Your task to perform on an android device: turn on the 24-hour format for clock Image 0: 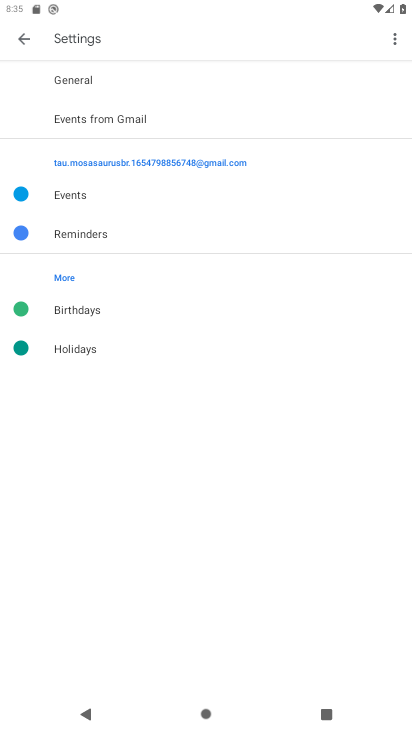
Step 0: press home button
Your task to perform on an android device: turn on the 24-hour format for clock Image 1: 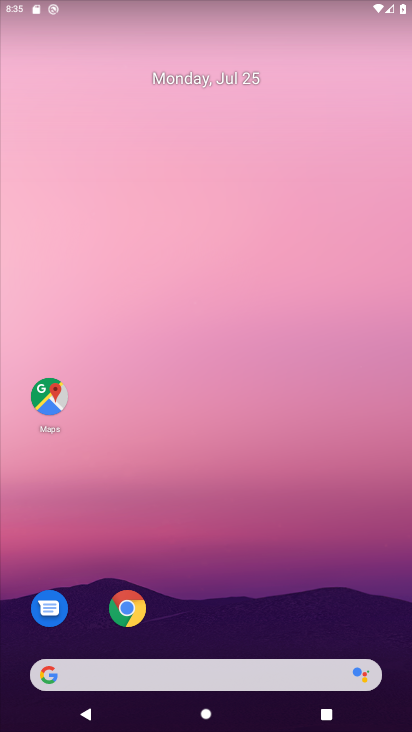
Step 1: drag from (220, 622) to (341, 5)
Your task to perform on an android device: turn on the 24-hour format for clock Image 2: 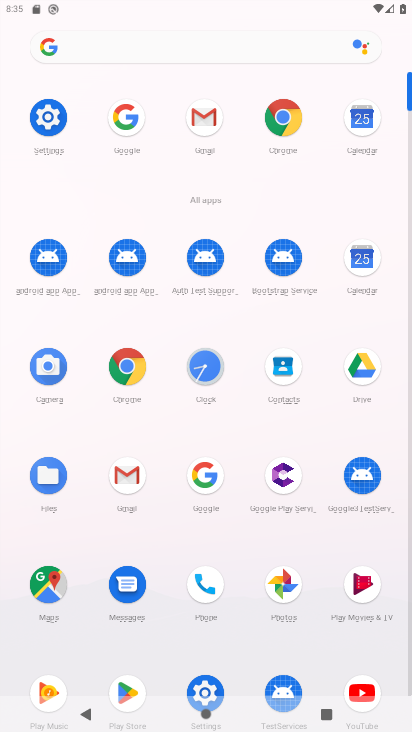
Step 2: click (200, 351)
Your task to perform on an android device: turn on the 24-hour format for clock Image 3: 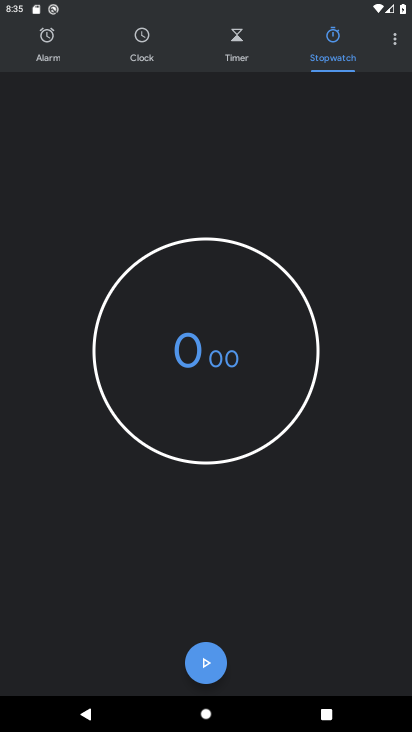
Step 3: click (394, 32)
Your task to perform on an android device: turn on the 24-hour format for clock Image 4: 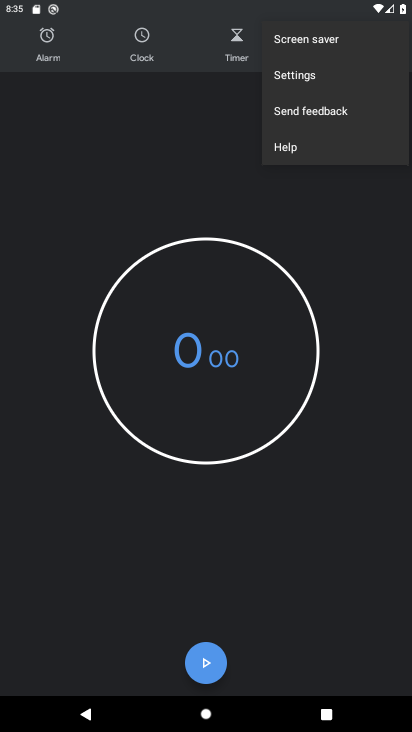
Step 4: click (295, 71)
Your task to perform on an android device: turn on the 24-hour format for clock Image 5: 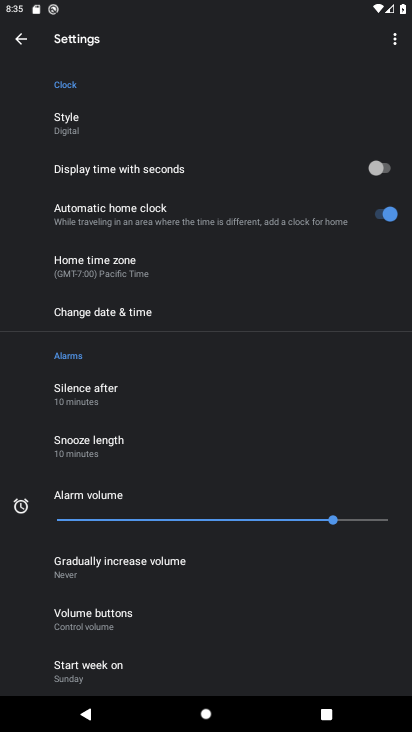
Step 5: click (179, 307)
Your task to perform on an android device: turn on the 24-hour format for clock Image 6: 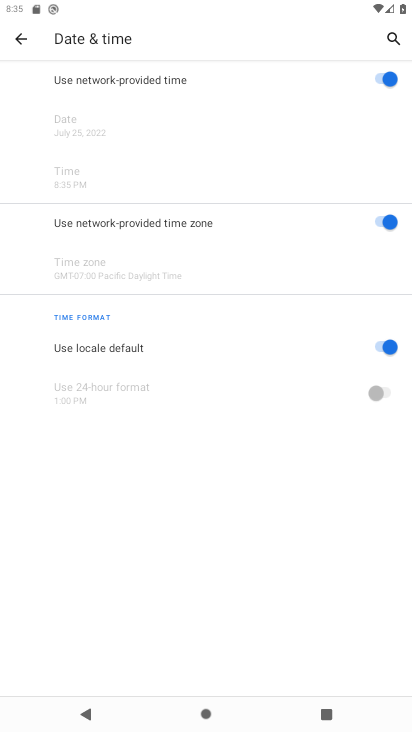
Step 6: click (389, 349)
Your task to perform on an android device: turn on the 24-hour format for clock Image 7: 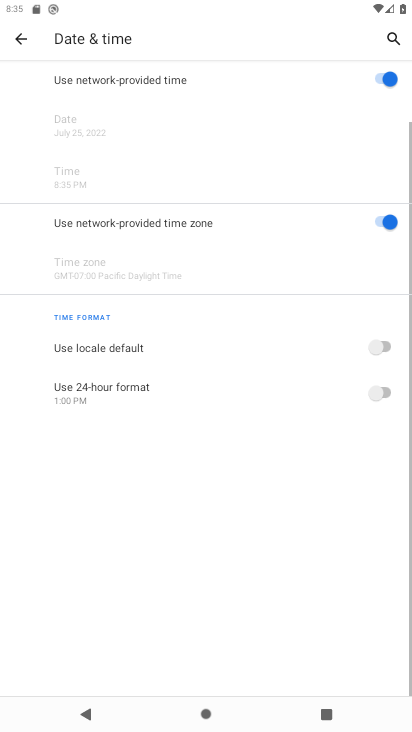
Step 7: click (390, 389)
Your task to perform on an android device: turn on the 24-hour format for clock Image 8: 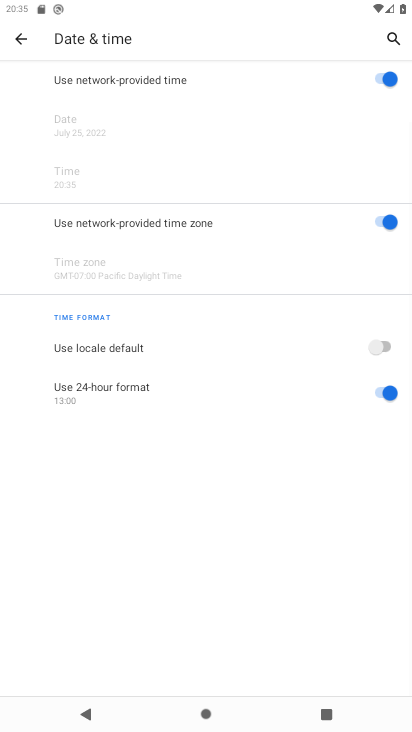
Step 8: task complete